Your task to perform on an android device: turn on the 12-hour format for clock Image 0: 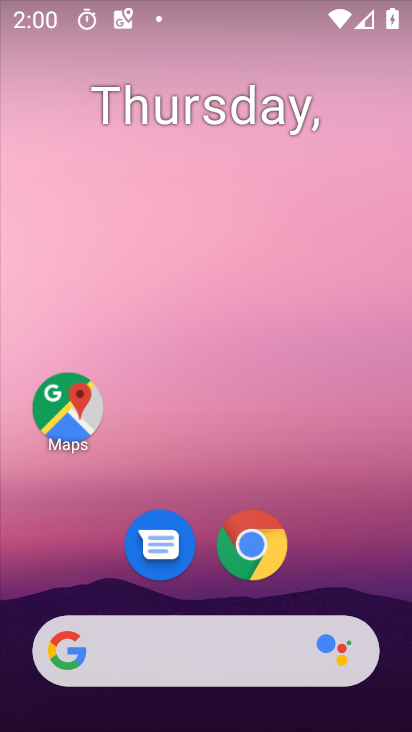
Step 0: drag from (223, 648) to (223, 34)
Your task to perform on an android device: turn on the 12-hour format for clock Image 1: 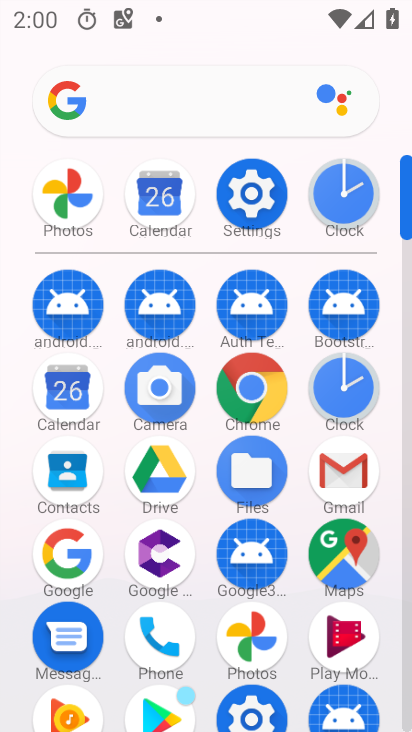
Step 1: click (335, 379)
Your task to perform on an android device: turn on the 12-hour format for clock Image 2: 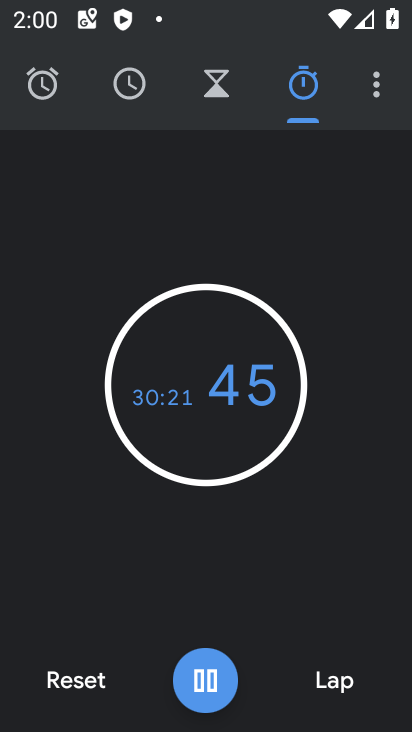
Step 2: click (374, 97)
Your task to perform on an android device: turn on the 12-hour format for clock Image 3: 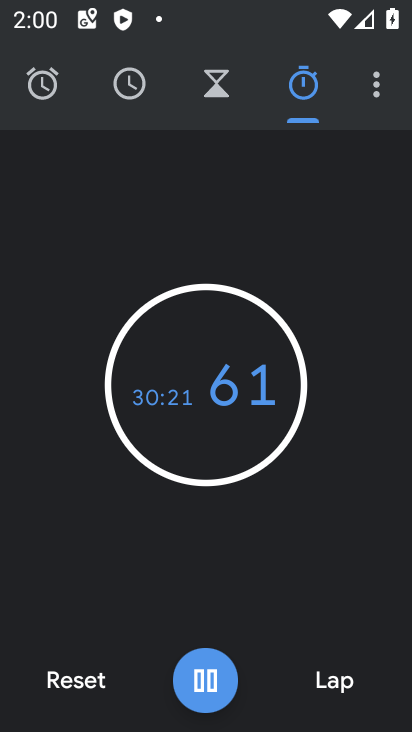
Step 3: click (374, 97)
Your task to perform on an android device: turn on the 12-hour format for clock Image 4: 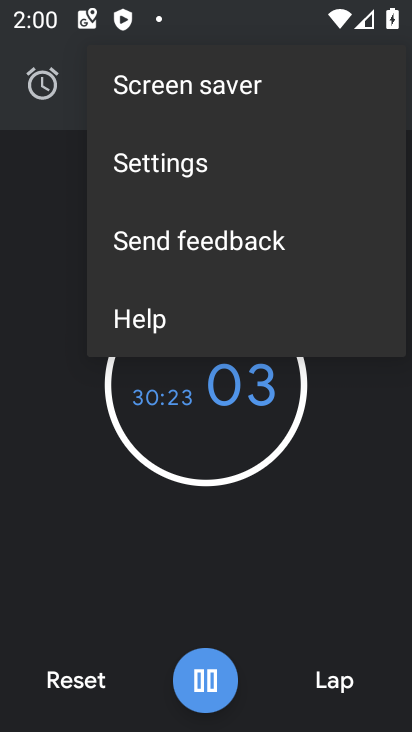
Step 4: click (175, 159)
Your task to perform on an android device: turn on the 12-hour format for clock Image 5: 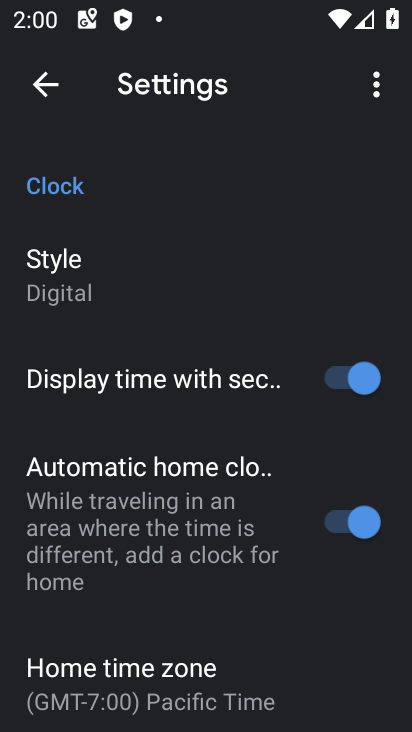
Step 5: drag from (124, 588) to (124, 214)
Your task to perform on an android device: turn on the 12-hour format for clock Image 6: 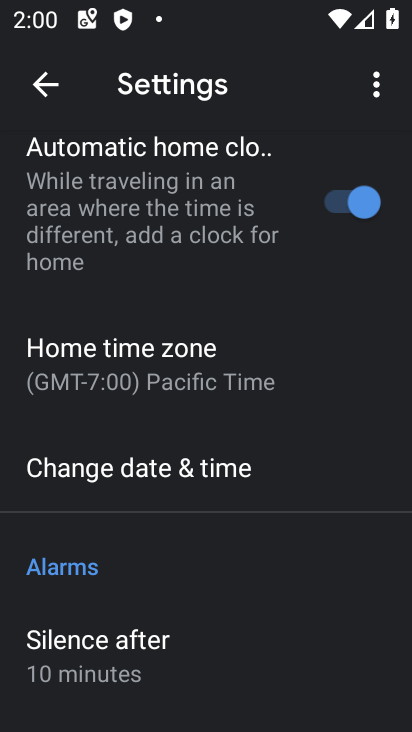
Step 6: click (119, 471)
Your task to perform on an android device: turn on the 12-hour format for clock Image 7: 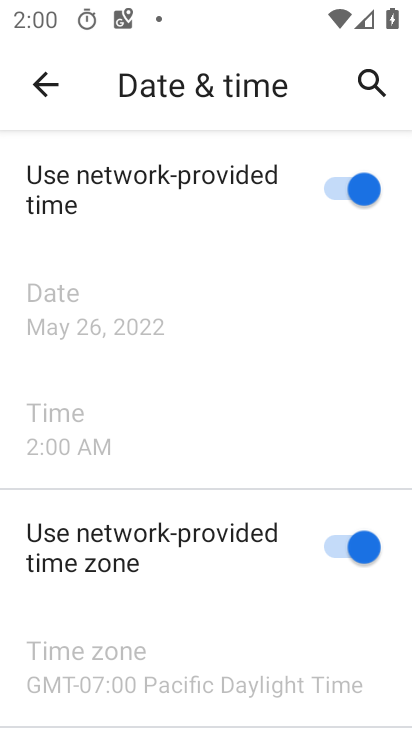
Step 7: task complete